Your task to perform on an android device: check out phone information Image 0: 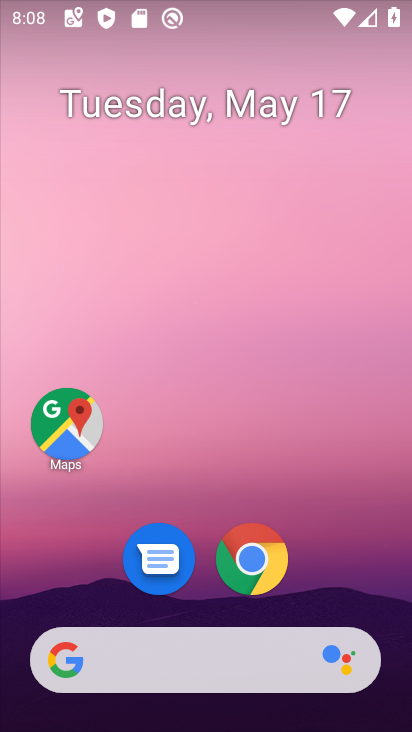
Step 0: drag from (229, 715) to (313, 19)
Your task to perform on an android device: check out phone information Image 1: 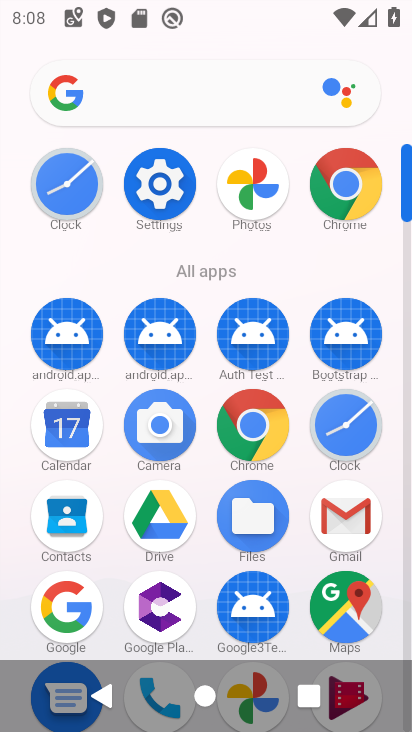
Step 1: click (166, 213)
Your task to perform on an android device: check out phone information Image 2: 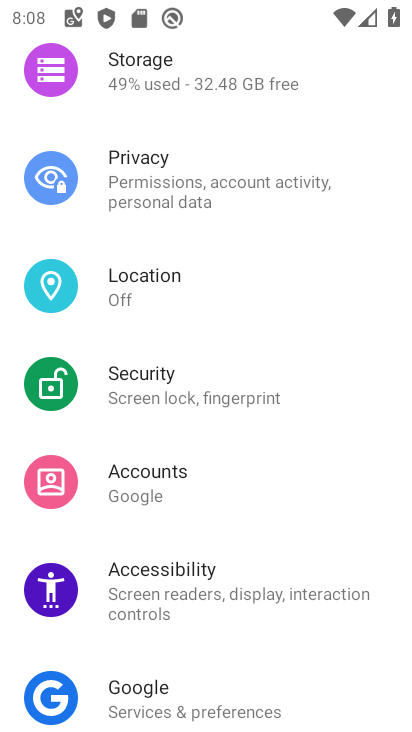
Step 2: drag from (288, 609) to (279, 28)
Your task to perform on an android device: check out phone information Image 3: 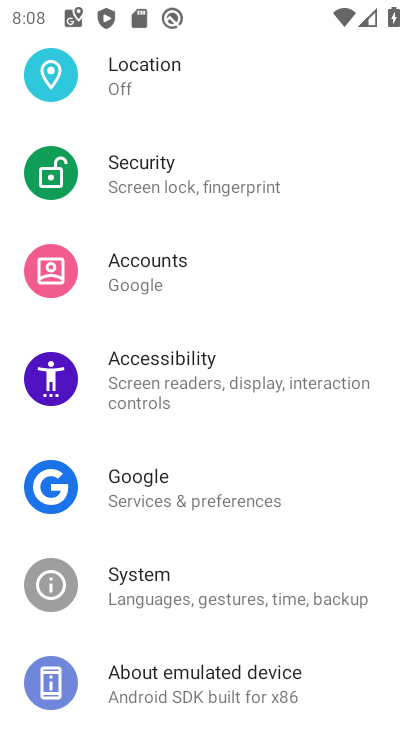
Step 3: drag from (268, 674) to (279, 114)
Your task to perform on an android device: check out phone information Image 4: 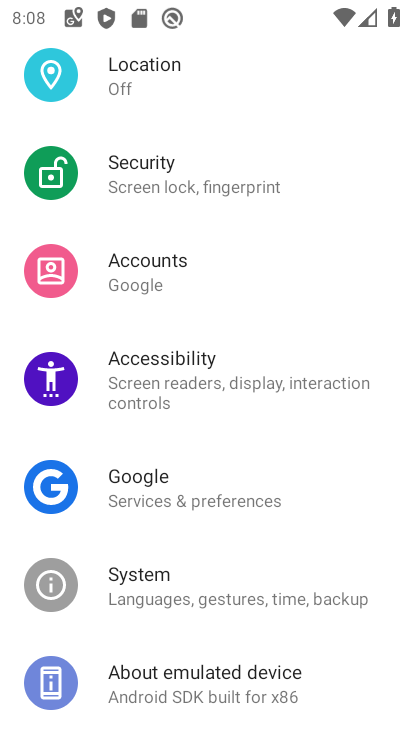
Step 4: click (194, 685)
Your task to perform on an android device: check out phone information Image 5: 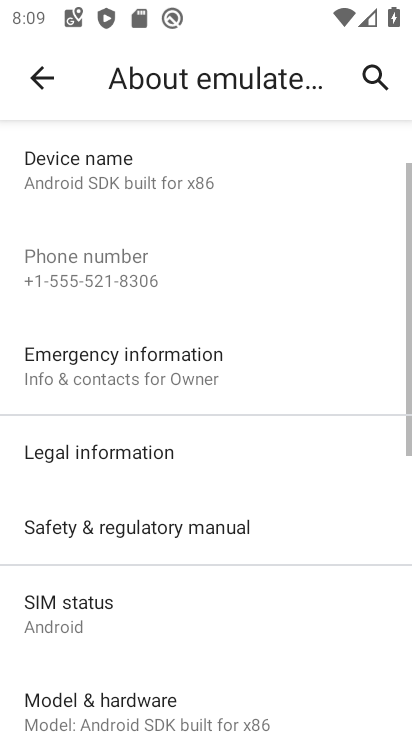
Step 5: task complete